Your task to perform on an android device: When is my next appointment? Image 0: 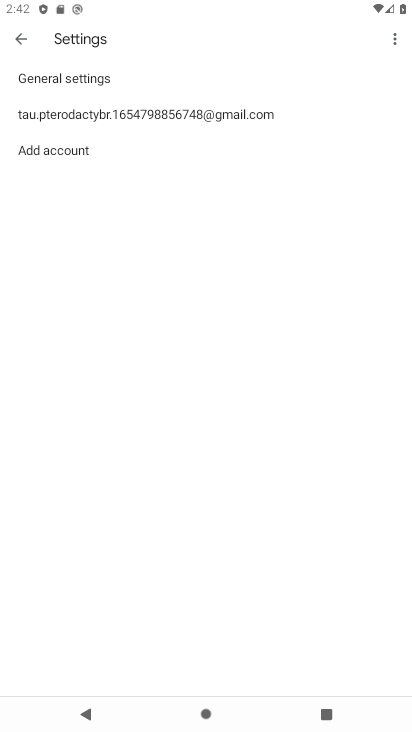
Step 0: press home button
Your task to perform on an android device: When is my next appointment? Image 1: 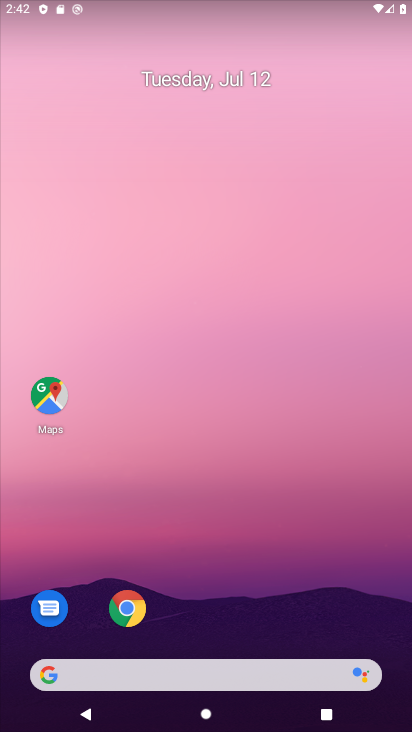
Step 1: drag from (229, 590) to (243, 334)
Your task to perform on an android device: When is my next appointment? Image 2: 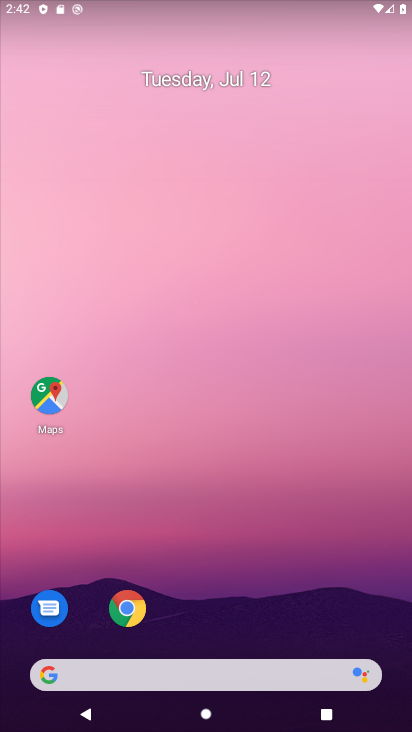
Step 2: drag from (257, 537) to (242, 3)
Your task to perform on an android device: When is my next appointment? Image 3: 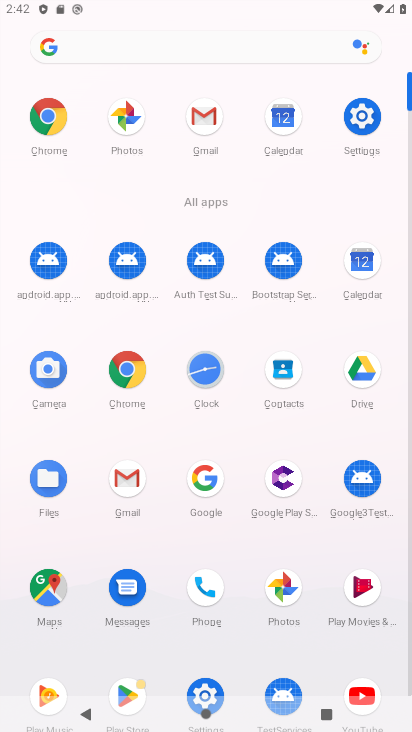
Step 3: click (358, 260)
Your task to perform on an android device: When is my next appointment? Image 4: 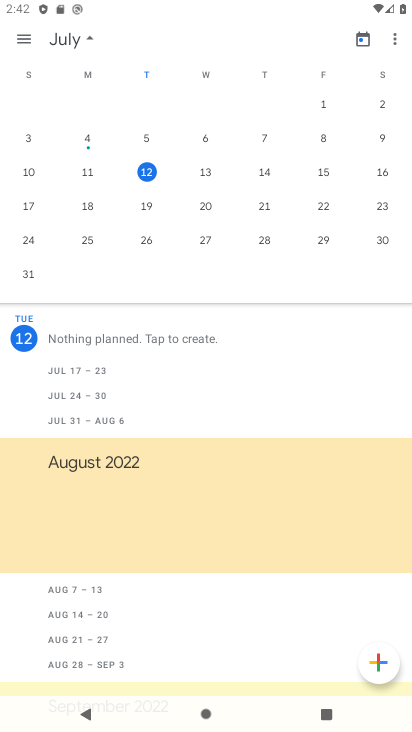
Step 4: click (151, 180)
Your task to perform on an android device: When is my next appointment? Image 5: 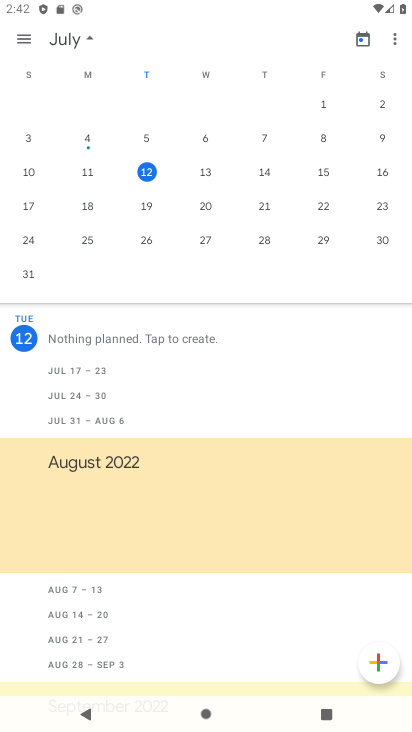
Step 5: task complete